Your task to perform on an android device: Open Google Image 0: 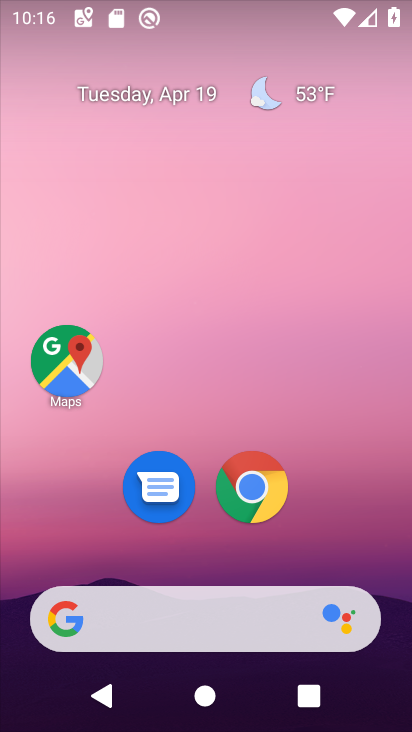
Step 0: drag from (397, 690) to (253, 46)
Your task to perform on an android device: Open Google Image 1: 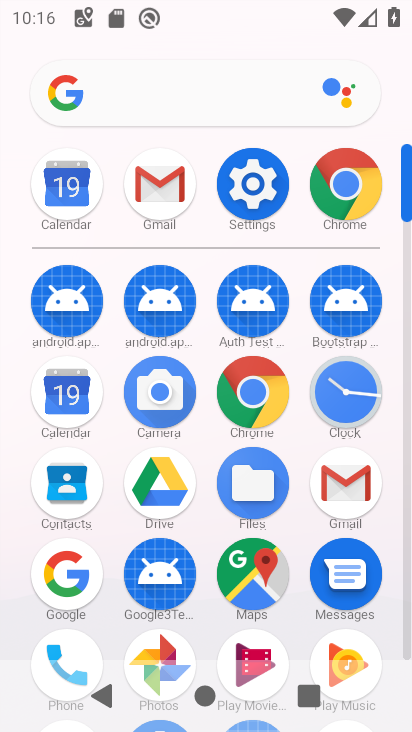
Step 1: drag from (7, 580) to (5, 327)
Your task to perform on an android device: Open Google Image 2: 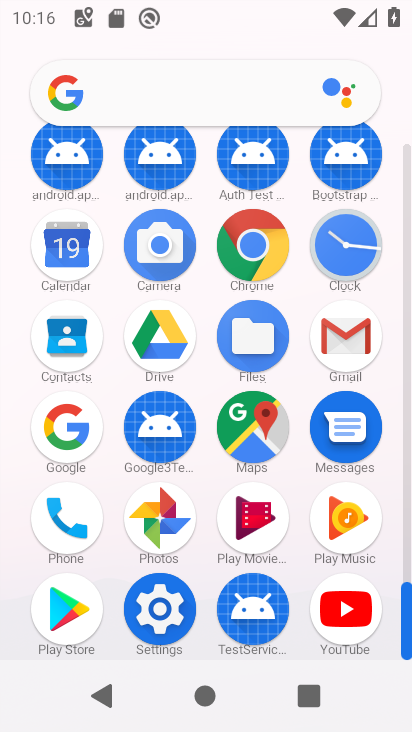
Step 2: drag from (13, 257) to (8, 376)
Your task to perform on an android device: Open Google Image 3: 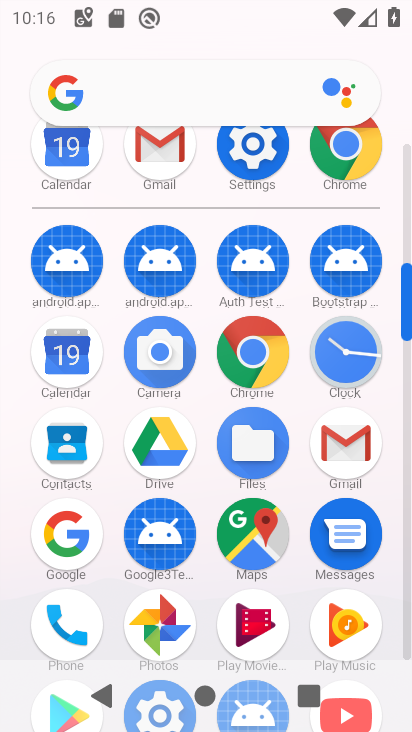
Step 3: click (253, 350)
Your task to perform on an android device: Open Google Image 4: 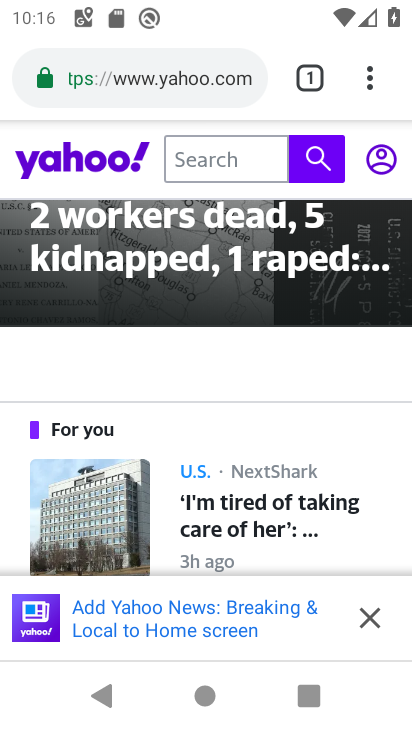
Step 4: click (171, 85)
Your task to perform on an android device: Open Google Image 5: 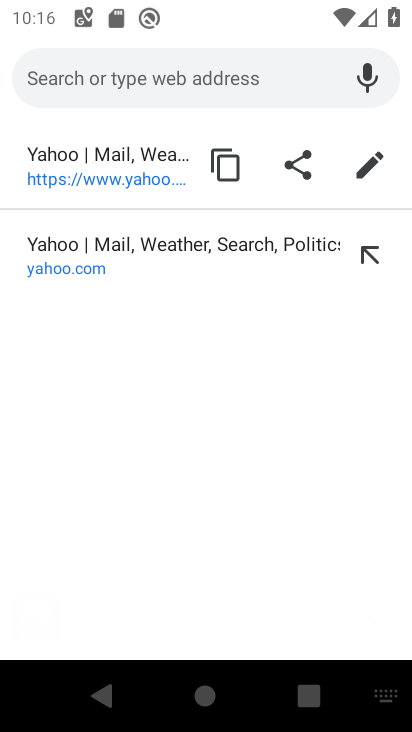
Step 5: type "google"
Your task to perform on an android device: Open Google Image 6: 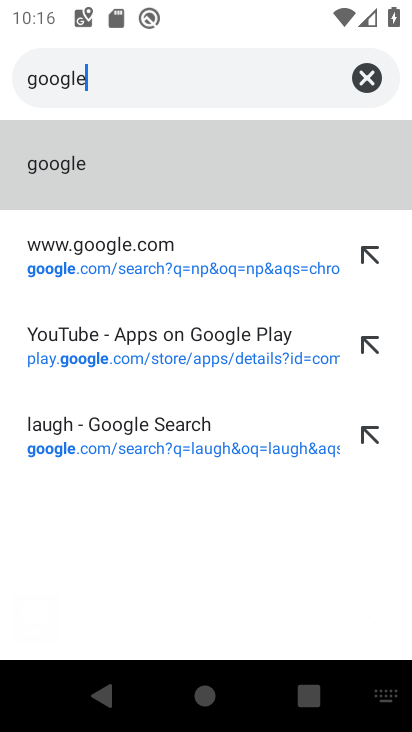
Step 6: click (113, 176)
Your task to perform on an android device: Open Google Image 7: 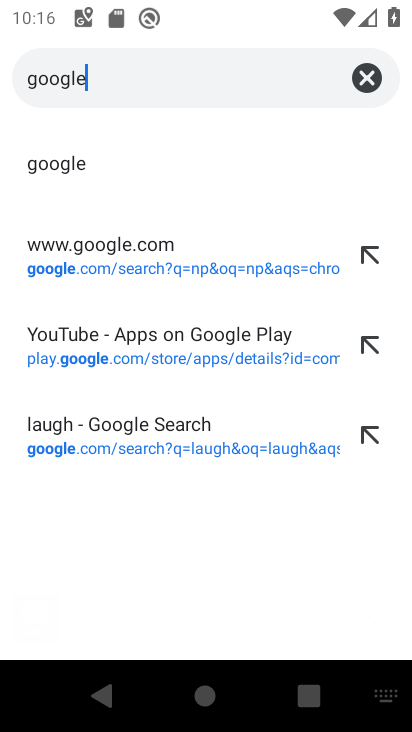
Step 7: click (127, 180)
Your task to perform on an android device: Open Google Image 8: 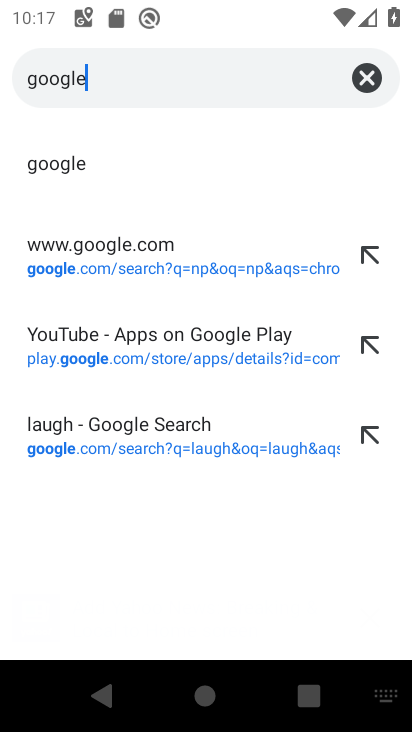
Step 8: click (104, 165)
Your task to perform on an android device: Open Google Image 9: 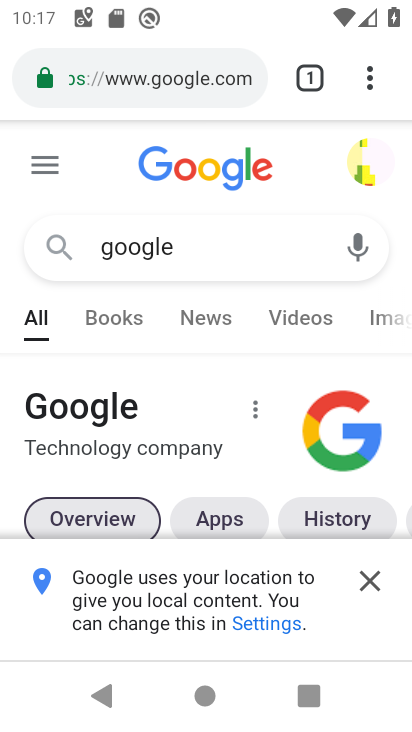
Step 9: drag from (173, 440) to (195, 141)
Your task to perform on an android device: Open Google Image 10: 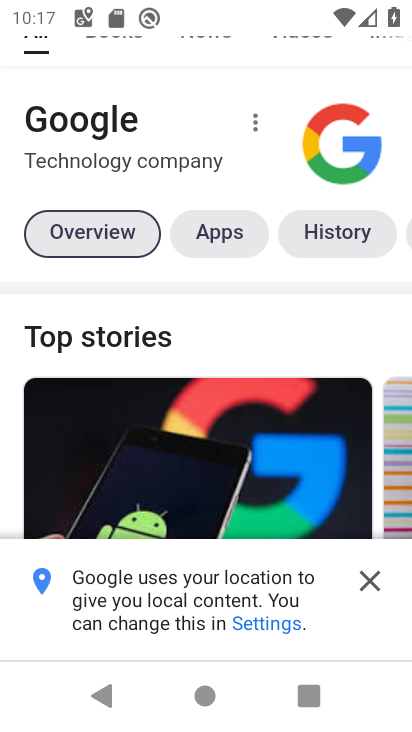
Step 10: drag from (159, 457) to (183, 184)
Your task to perform on an android device: Open Google Image 11: 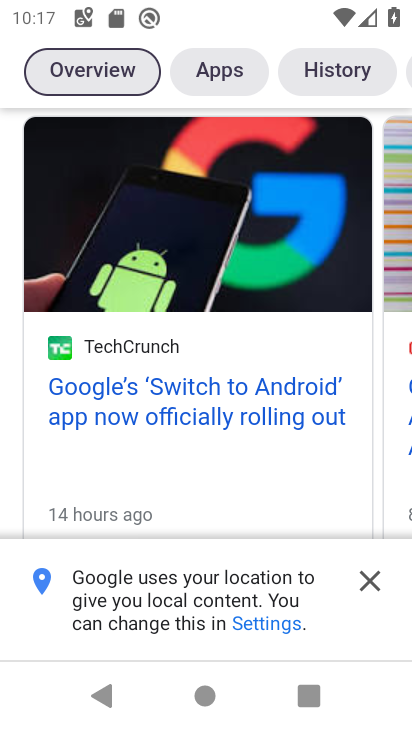
Step 11: drag from (174, 501) to (195, 110)
Your task to perform on an android device: Open Google Image 12: 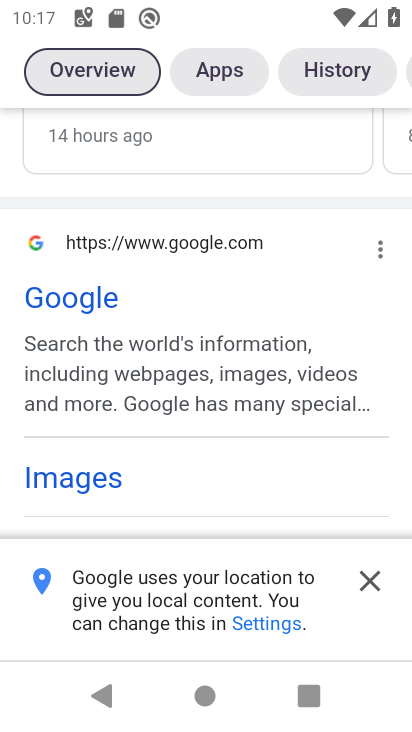
Step 12: click (82, 298)
Your task to perform on an android device: Open Google Image 13: 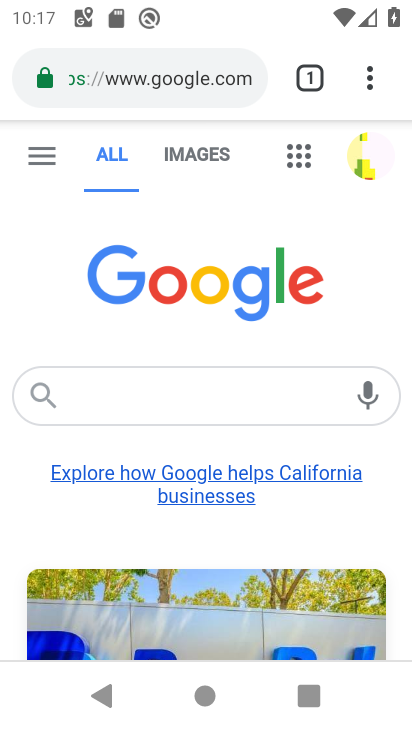
Step 13: task complete